Your task to perform on an android device: delete browsing data in the chrome app Image 0: 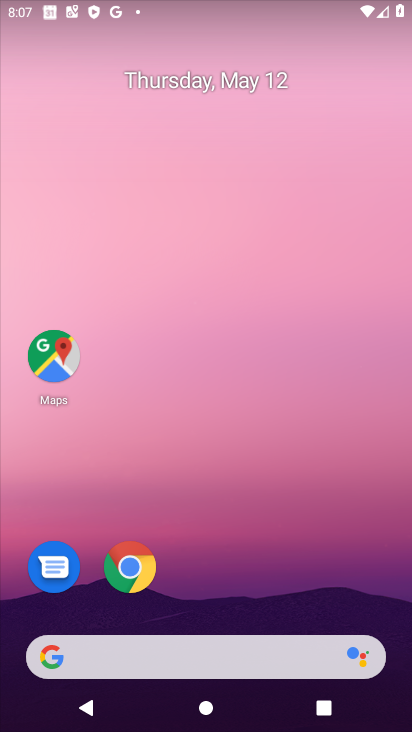
Step 0: drag from (202, 651) to (127, 77)
Your task to perform on an android device: delete browsing data in the chrome app Image 1: 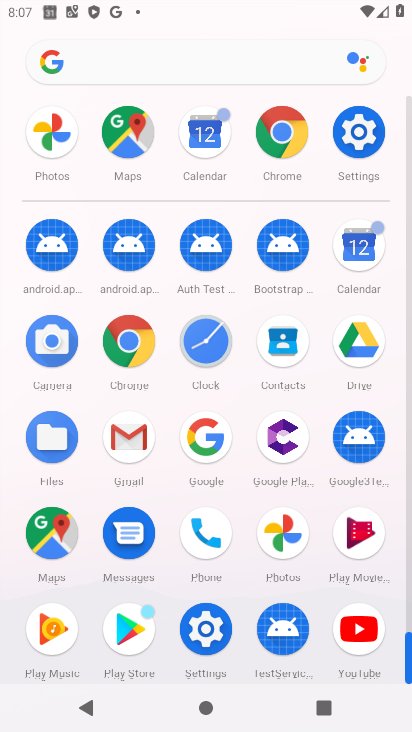
Step 1: click (278, 169)
Your task to perform on an android device: delete browsing data in the chrome app Image 2: 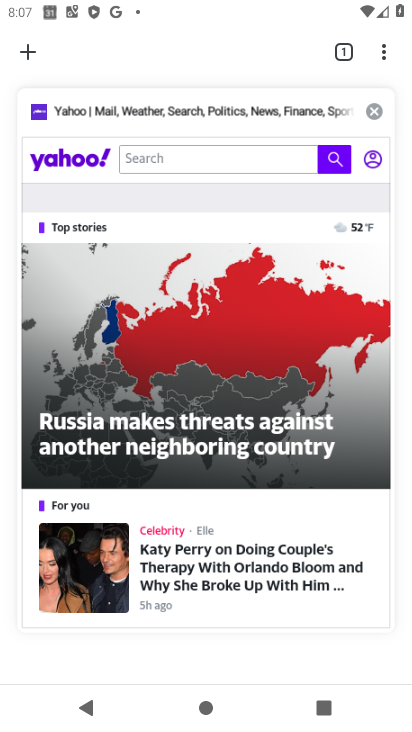
Step 2: click (259, 426)
Your task to perform on an android device: delete browsing data in the chrome app Image 3: 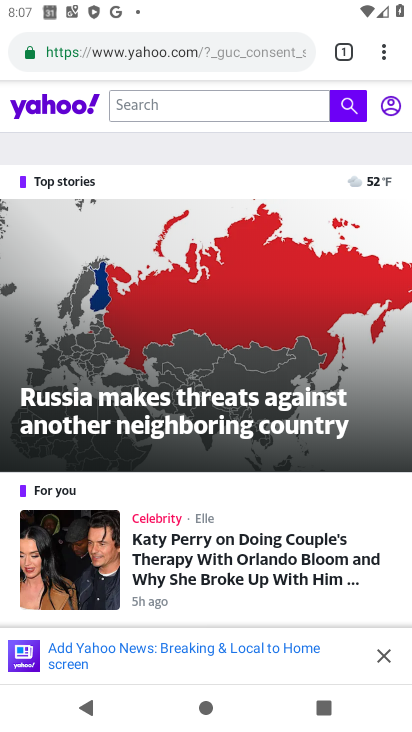
Step 3: click (383, 55)
Your task to perform on an android device: delete browsing data in the chrome app Image 4: 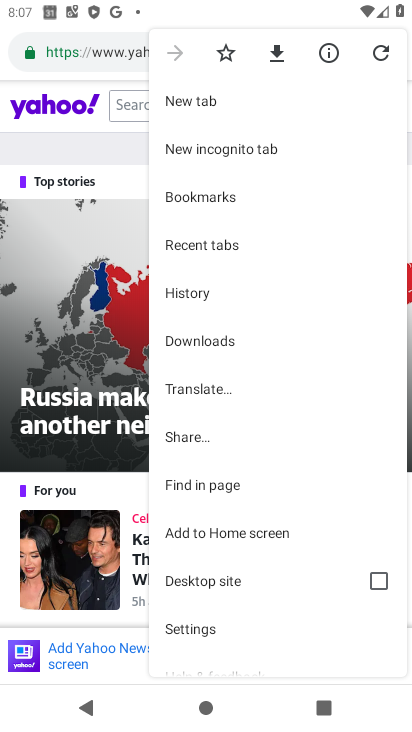
Step 4: click (222, 293)
Your task to perform on an android device: delete browsing data in the chrome app Image 5: 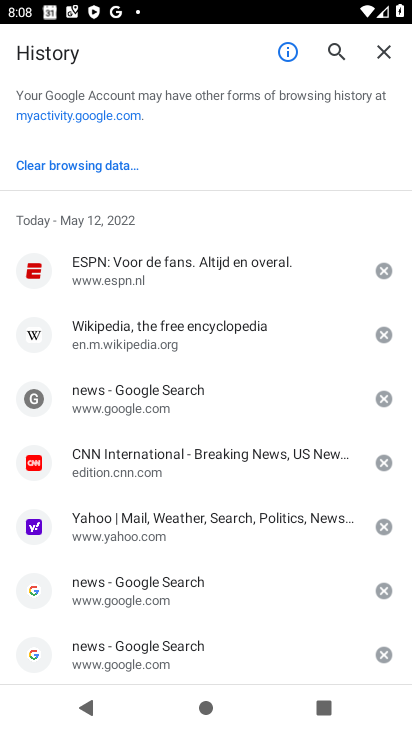
Step 5: click (103, 159)
Your task to perform on an android device: delete browsing data in the chrome app Image 6: 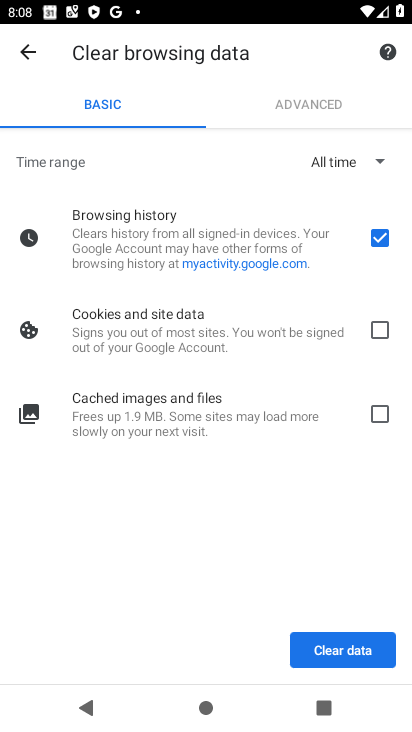
Step 6: click (311, 649)
Your task to perform on an android device: delete browsing data in the chrome app Image 7: 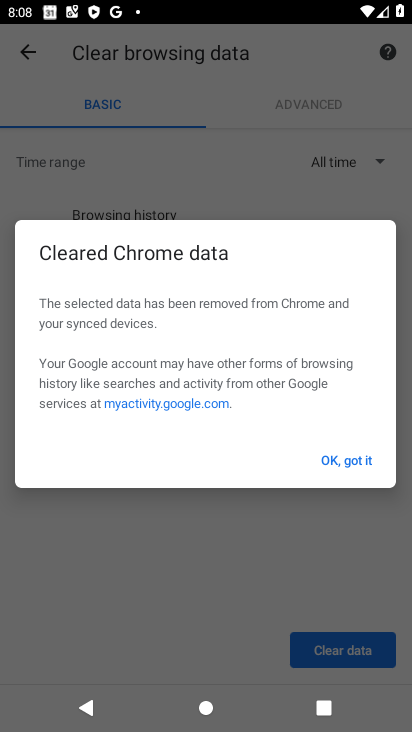
Step 7: click (359, 457)
Your task to perform on an android device: delete browsing data in the chrome app Image 8: 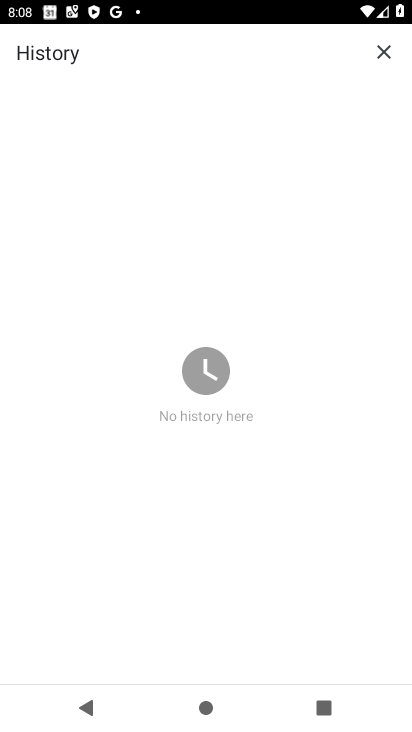
Step 8: task complete